Your task to perform on an android device: Go to calendar. Show me events next week Image 0: 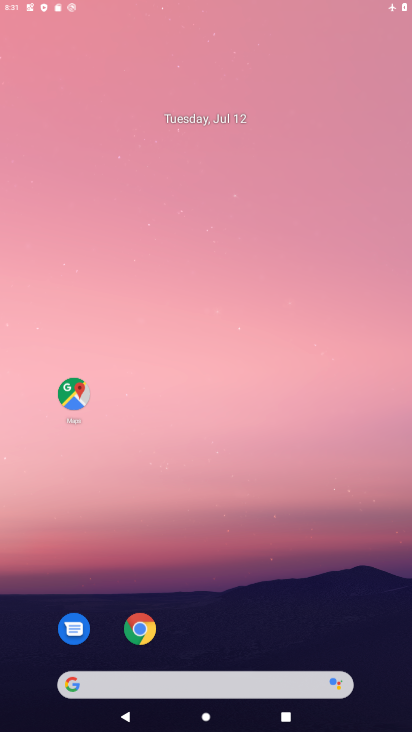
Step 0: drag from (203, 581) to (203, 173)
Your task to perform on an android device: Go to calendar. Show me events next week Image 1: 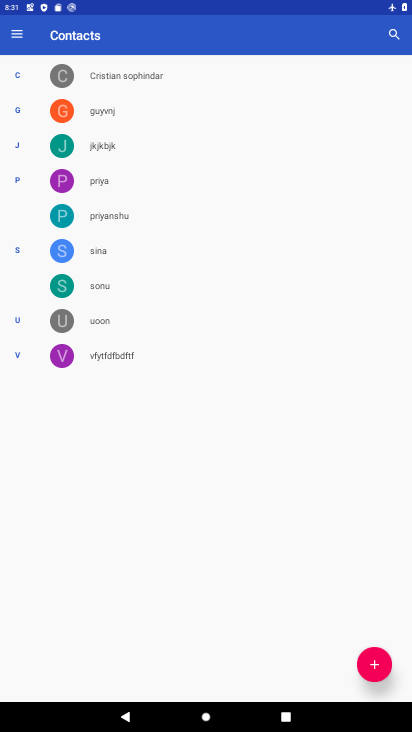
Step 1: press home button
Your task to perform on an android device: Go to calendar. Show me events next week Image 2: 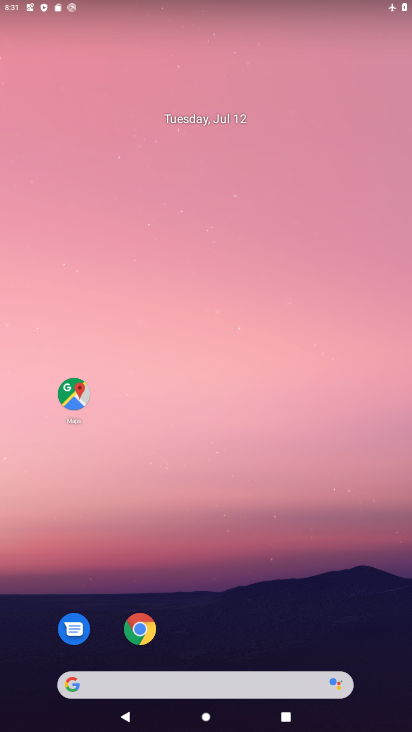
Step 2: drag from (245, 615) to (249, 200)
Your task to perform on an android device: Go to calendar. Show me events next week Image 3: 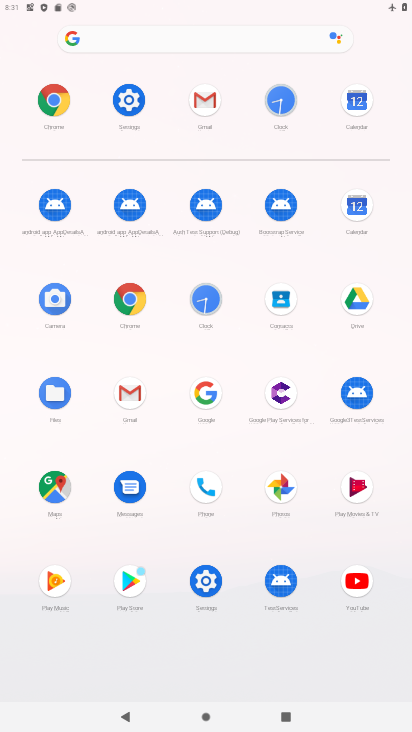
Step 3: click (357, 198)
Your task to perform on an android device: Go to calendar. Show me events next week Image 4: 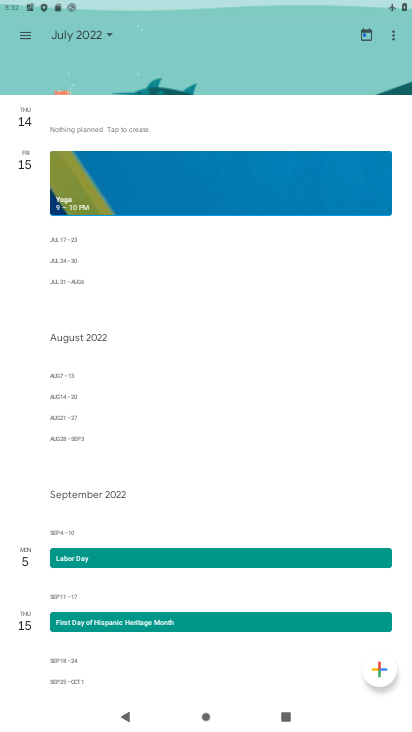
Step 4: click (24, 32)
Your task to perform on an android device: Go to calendar. Show me events next week Image 5: 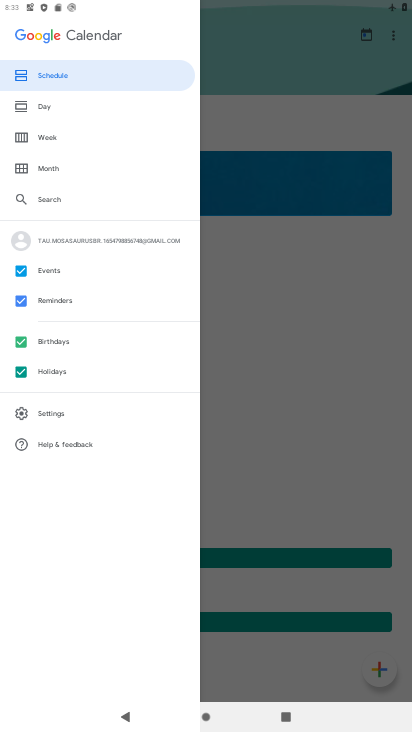
Step 5: click (49, 132)
Your task to perform on an android device: Go to calendar. Show me events next week Image 6: 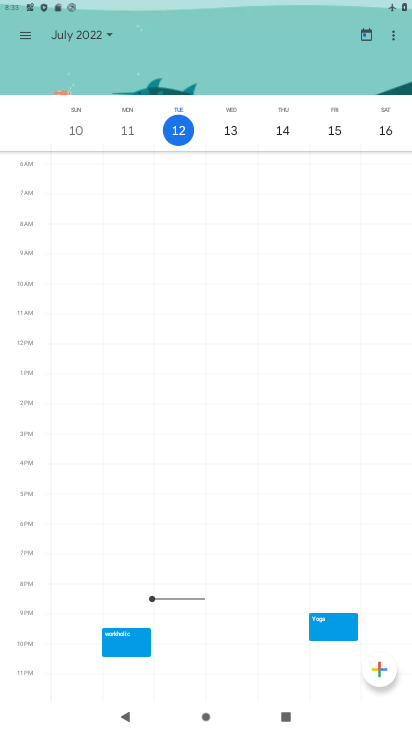
Step 6: task complete